Your task to perform on an android device: turn on the 12-hour format for clock Image 0: 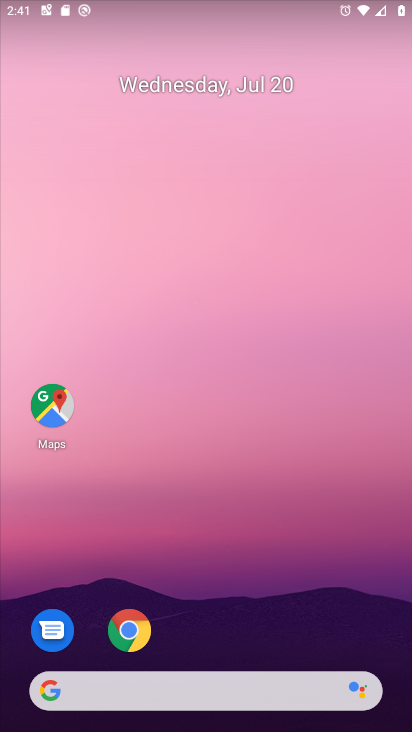
Step 0: drag from (234, 460) to (299, 83)
Your task to perform on an android device: turn on the 12-hour format for clock Image 1: 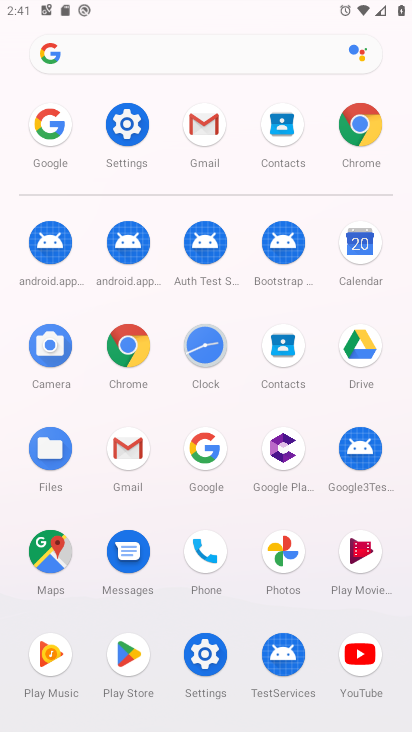
Step 1: drag from (205, 511) to (215, 239)
Your task to perform on an android device: turn on the 12-hour format for clock Image 2: 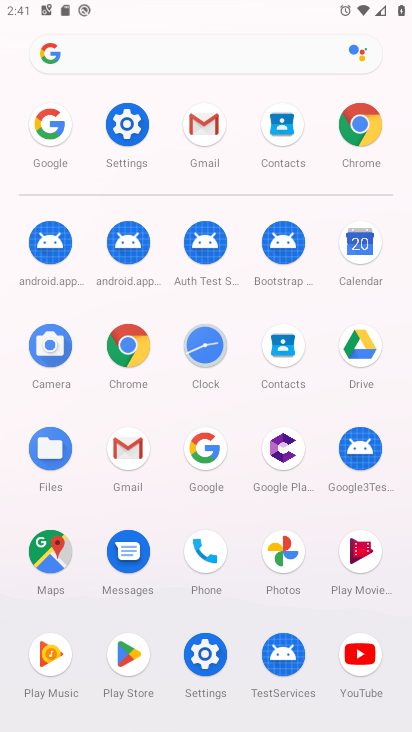
Step 2: click (212, 366)
Your task to perform on an android device: turn on the 12-hour format for clock Image 3: 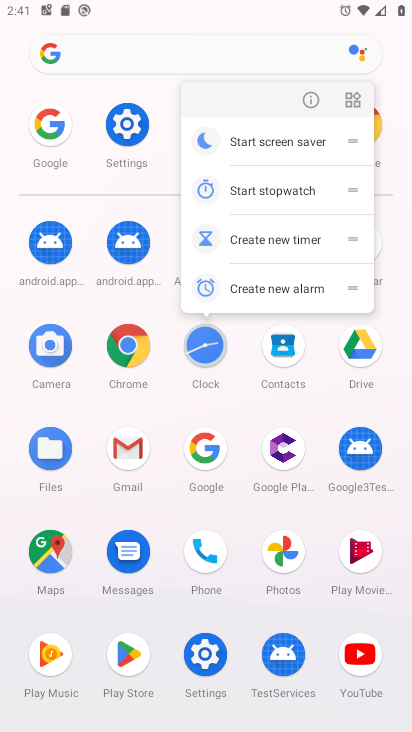
Step 3: click (203, 359)
Your task to perform on an android device: turn on the 12-hour format for clock Image 4: 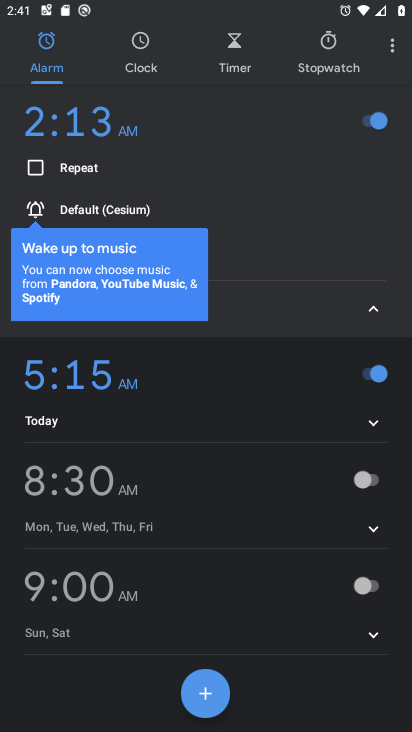
Step 4: click (390, 47)
Your task to perform on an android device: turn on the 12-hour format for clock Image 5: 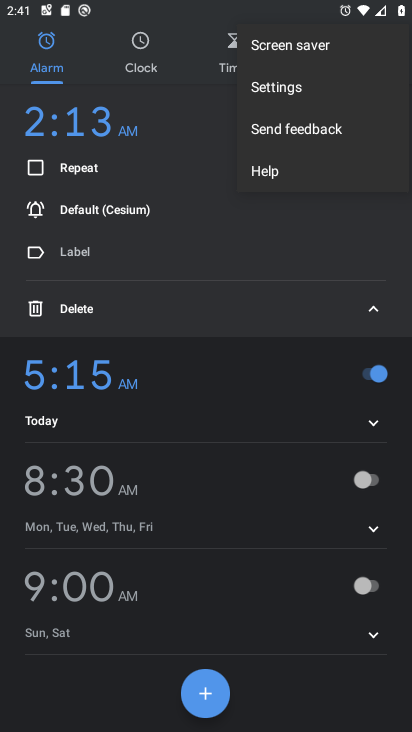
Step 5: click (288, 93)
Your task to perform on an android device: turn on the 12-hour format for clock Image 6: 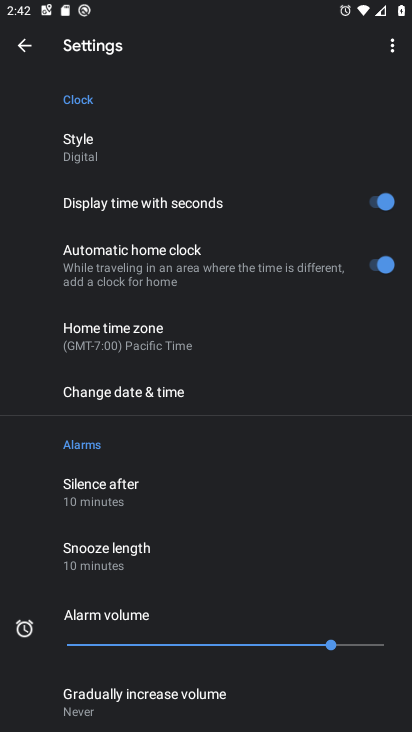
Step 6: click (156, 399)
Your task to perform on an android device: turn on the 12-hour format for clock Image 7: 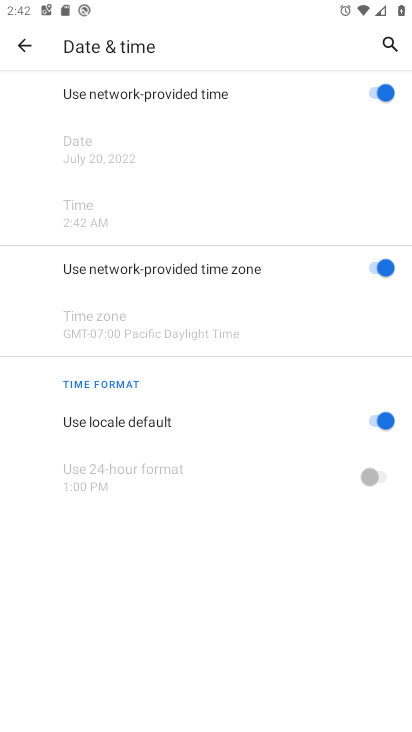
Step 7: task complete